Your task to perform on an android device: Go to display settings Image 0: 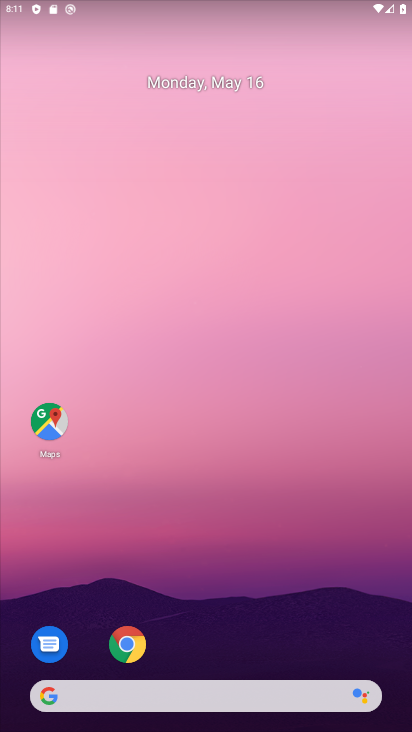
Step 0: drag from (163, 731) to (269, 307)
Your task to perform on an android device: Go to display settings Image 1: 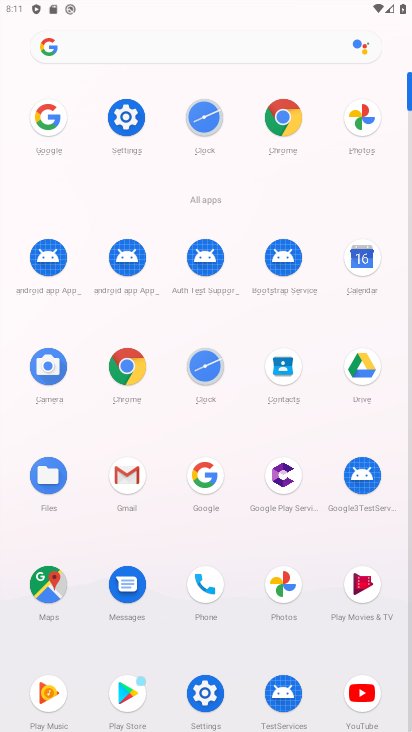
Step 1: click (126, 116)
Your task to perform on an android device: Go to display settings Image 2: 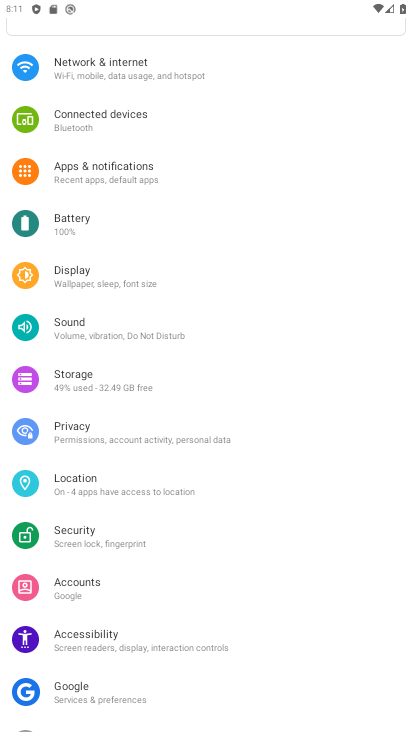
Step 2: click (98, 284)
Your task to perform on an android device: Go to display settings Image 3: 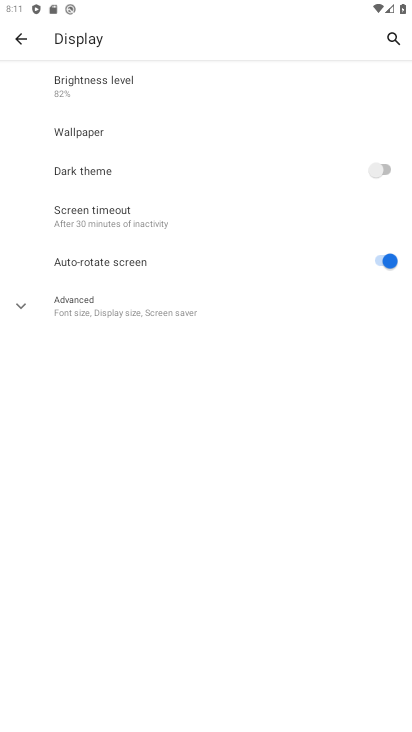
Step 3: task complete